Your task to perform on an android device: Go to Yahoo.com Image 0: 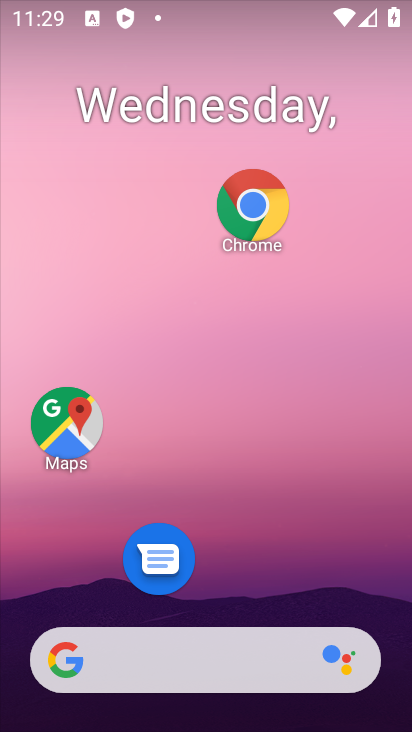
Step 0: drag from (236, 645) to (168, 15)
Your task to perform on an android device: Go to Yahoo.com Image 1: 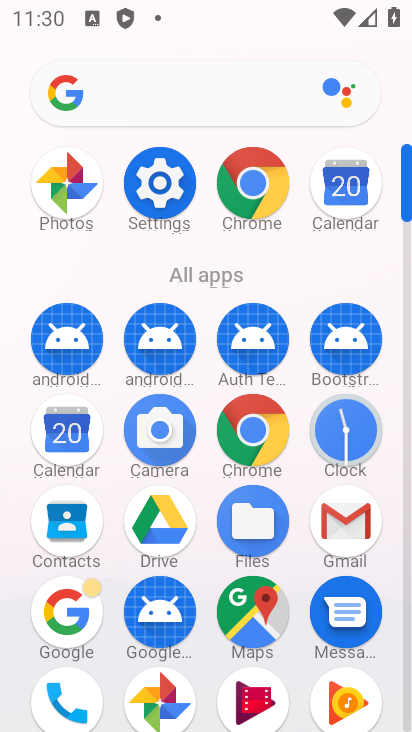
Step 1: drag from (200, 627) to (212, 211)
Your task to perform on an android device: Go to Yahoo.com Image 2: 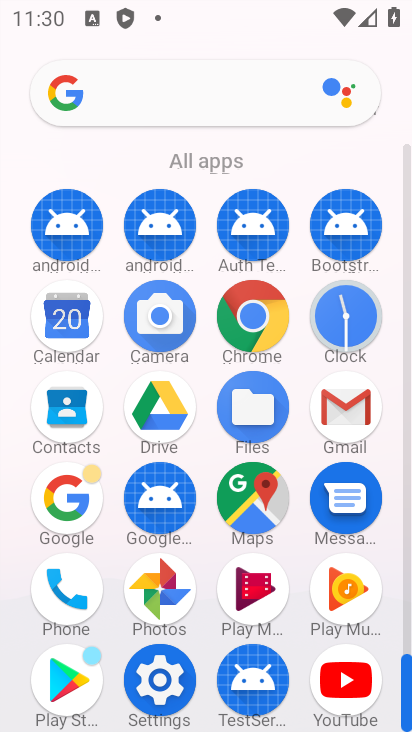
Step 2: click (236, 272)
Your task to perform on an android device: Go to Yahoo.com Image 3: 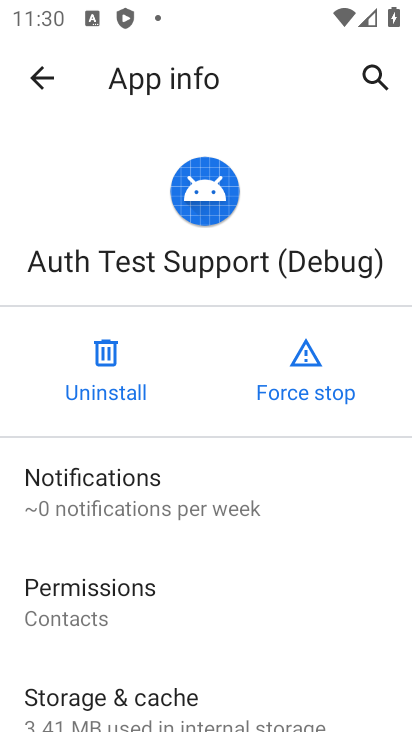
Step 3: drag from (190, 641) to (227, 15)
Your task to perform on an android device: Go to Yahoo.com Image 4: 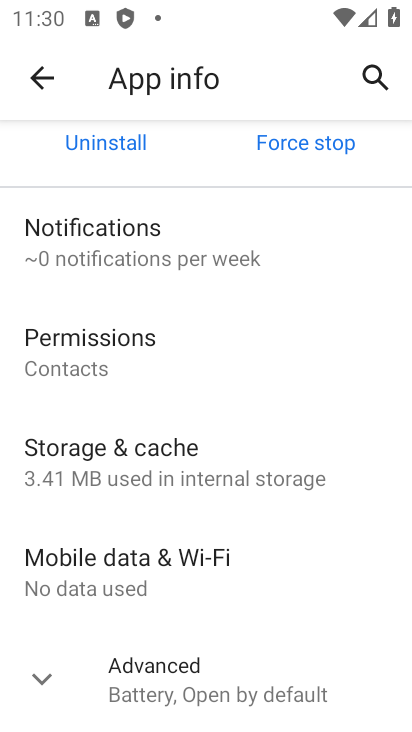
Step 4: press home button
Your task to perform on an android device: Go to Yahoo.com Image 5: 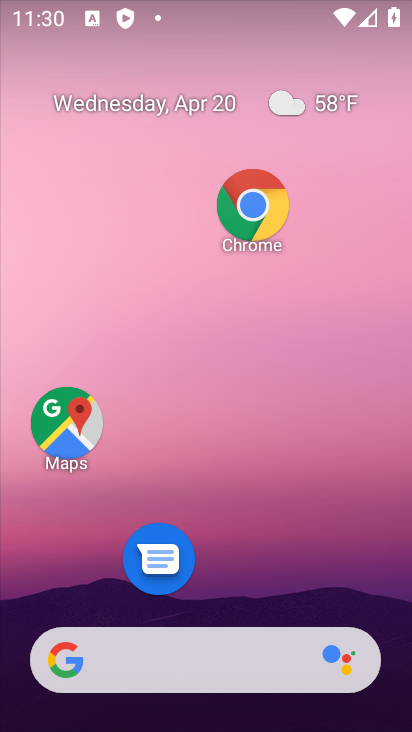
Step 5: drag from (291, 599) to (280, 0)
Your task to perform on an android device: Go to Yahoo.com Image 6: 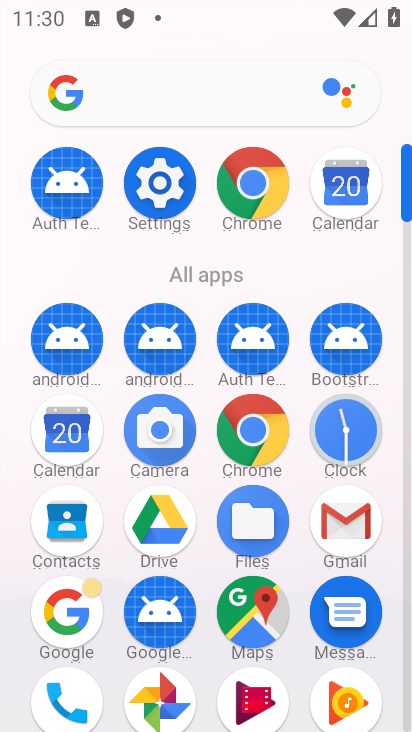
Step 6: click (261, 438)
Your task to perform on an android device: Go to Yahoo.com Image 7: 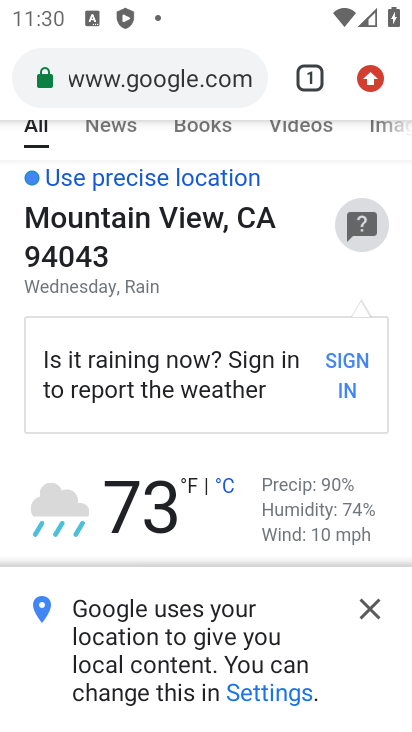
Step 7: click (195, 73)
Your task to perform on an android device: Go to Yahoo.com Image 8: 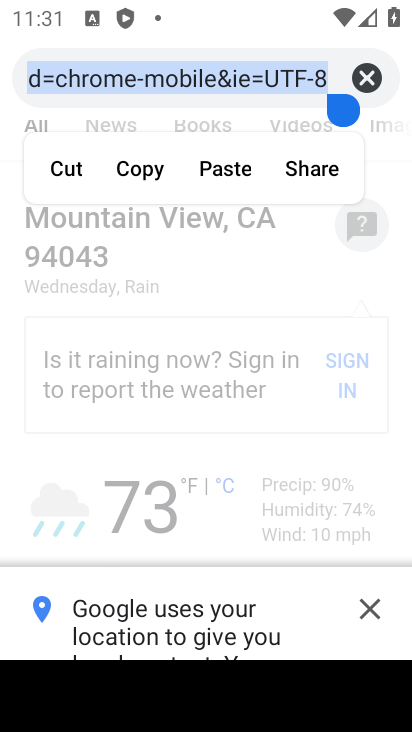
Step 8: click (358, 79)
Your task to perform on an android device: Go to Yahoo.com Image 9: 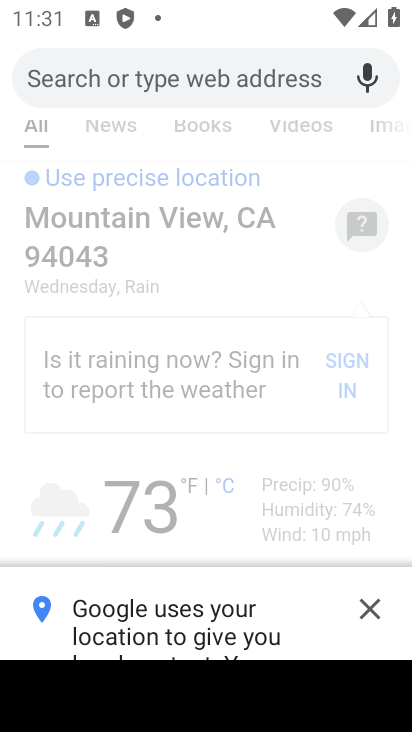
Step 9: type "yahoo.com"
Your task to perform on an android device: Go to Yahoo.com Image 10: 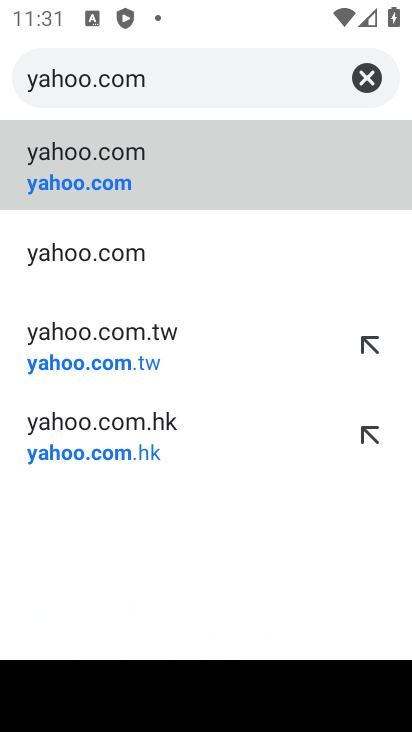
Step 10: click (106, 191)
Your task to perform on an android device: Go to Yahoo.com Image 11: 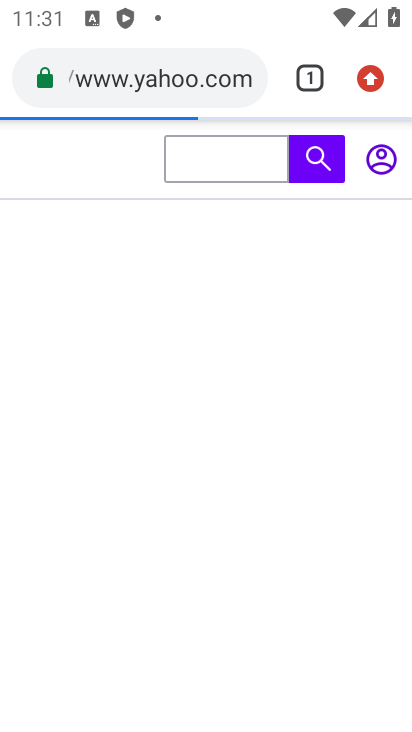
Step 11: task complete